Your task to perform on an android device: Check the news Image 0: 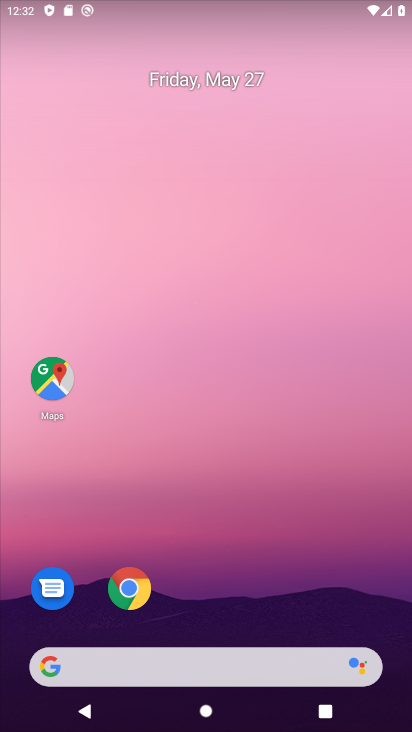
Step 0: click (202, 663)
Your task to perform on an android device: Check the news Image 1: 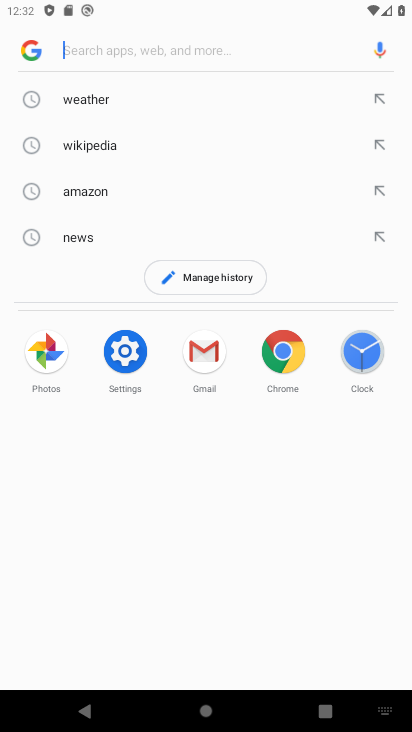
Step 1: click (84, 227)
Your task to perform on an android device: Check the news Image 2: 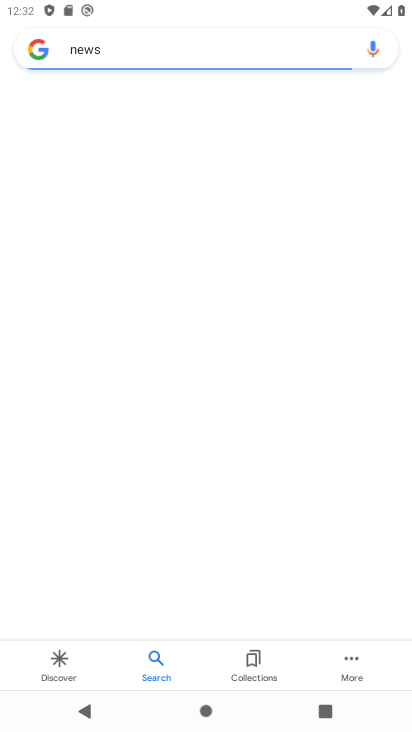
Step 2: task complete